Your task to perform on an android device: open chrome privacy settings Image 0: 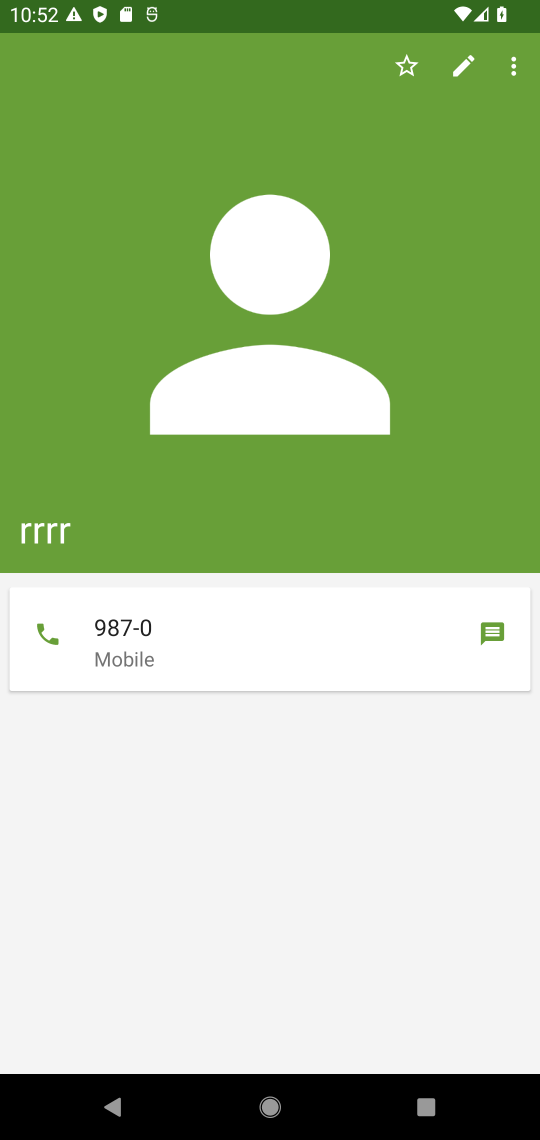
Step 0: press home button
Your task to perform on an android device: open chrome privacy settings Image 1: 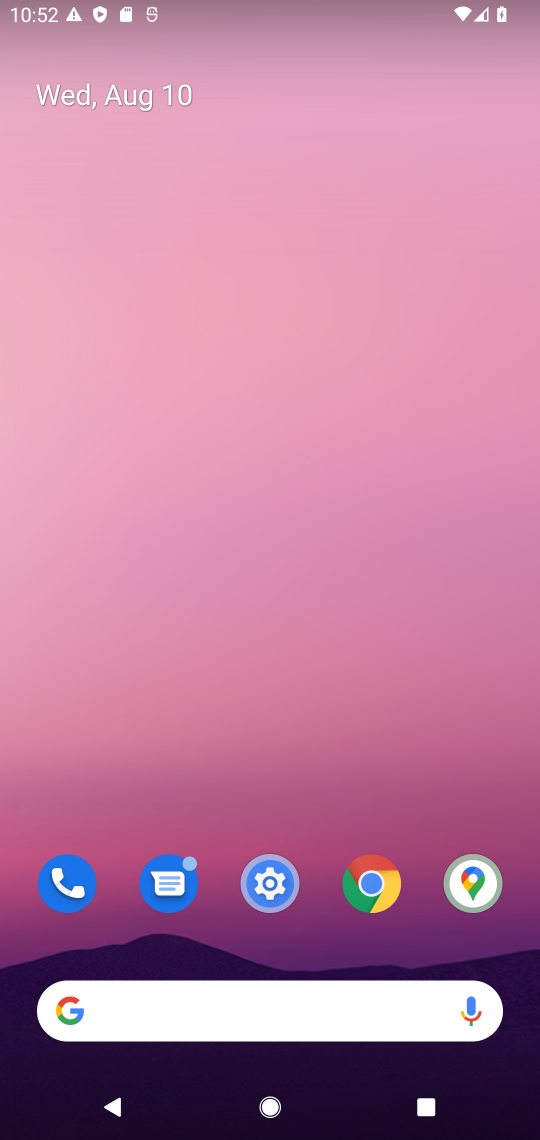
Step 1: drag from (307, 937) to (382, 138)
Your task to perform on an android device: open chrome privacy settings Image 2: 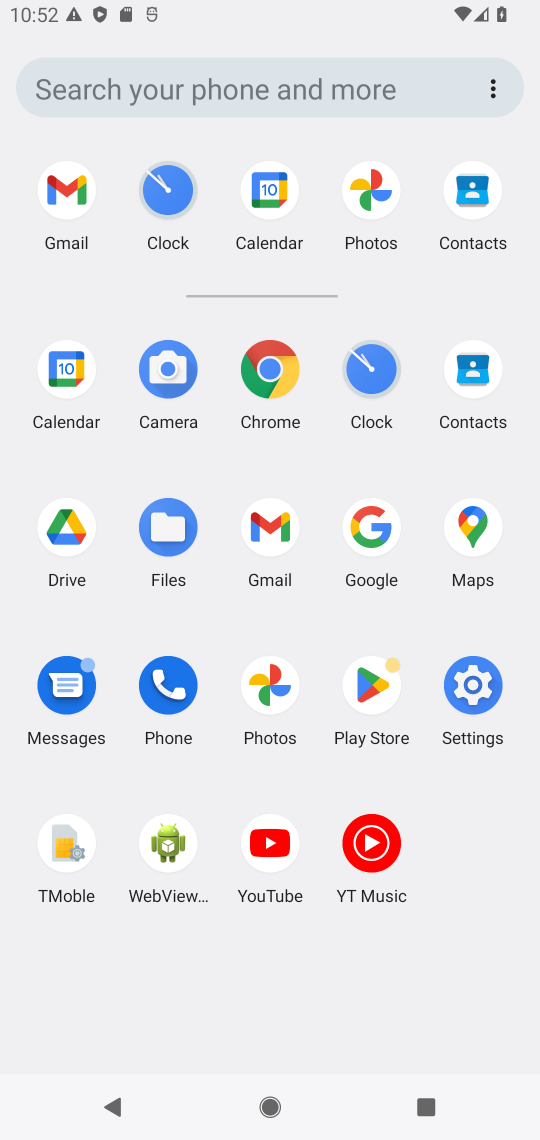
Step 2: click (466, 692)
Your task to perform on an android device: open chrome privacy settings Image 3: 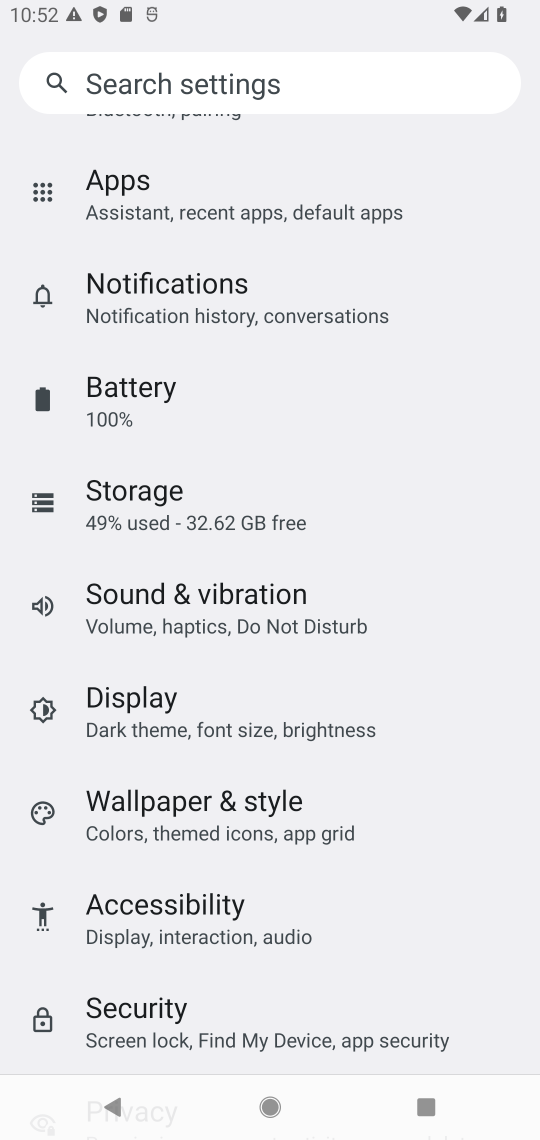
Step 3: drag from (396, 844) to (476, 322)
Your task to perform on an android device: open chrome privacy settings Image 4: 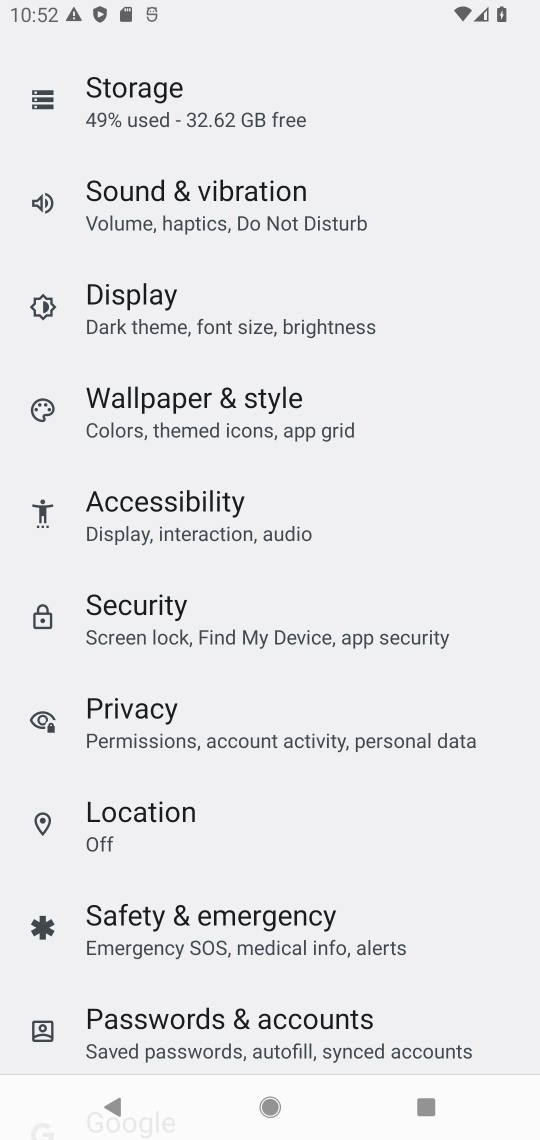
Step 4: click (165, 714)
Your task to perform on an android device: open chrome privacy settings Image 5: 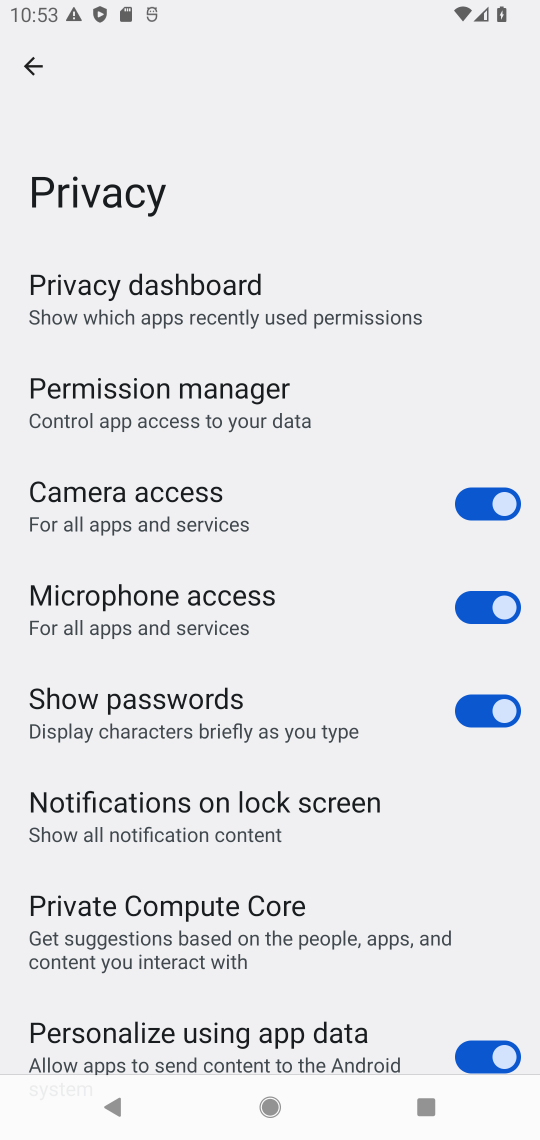
Step 5: task complete